Your task to perform on an android device: Do I have any events tomorrow? Image 0: 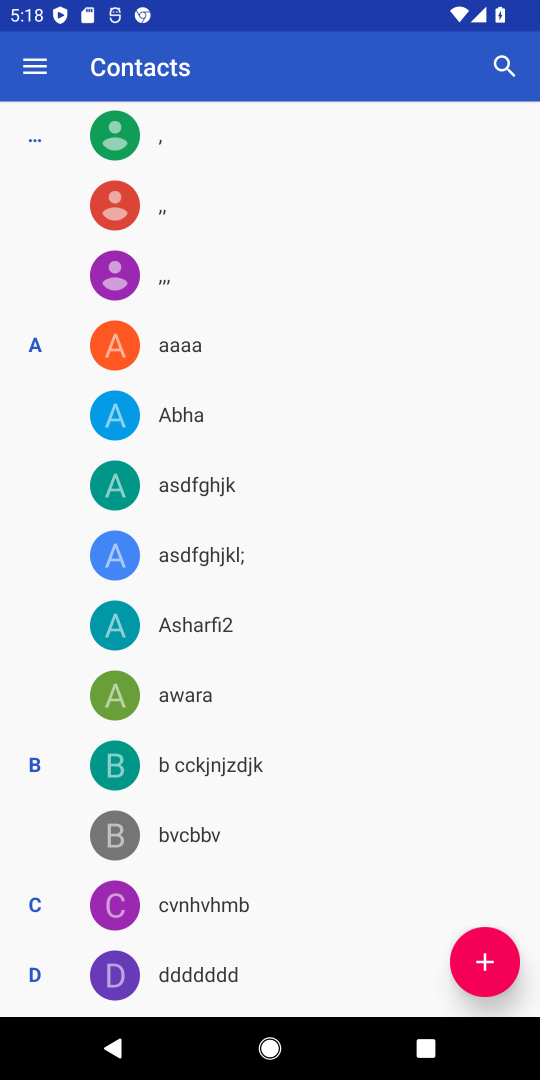
Step 0: press home button
Your task to perform on an android device: Do I have any events tomorrow? Image 1: 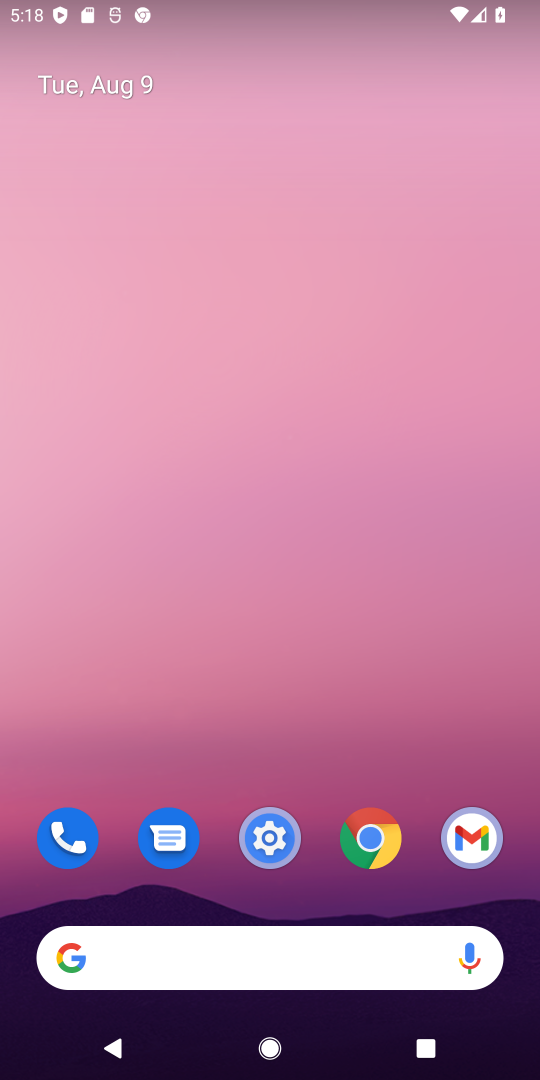
Step 1: drag from (317, 759) to (374, 258)
Your task to perform on an android device: Do I have any events tomorrow? Image 2: 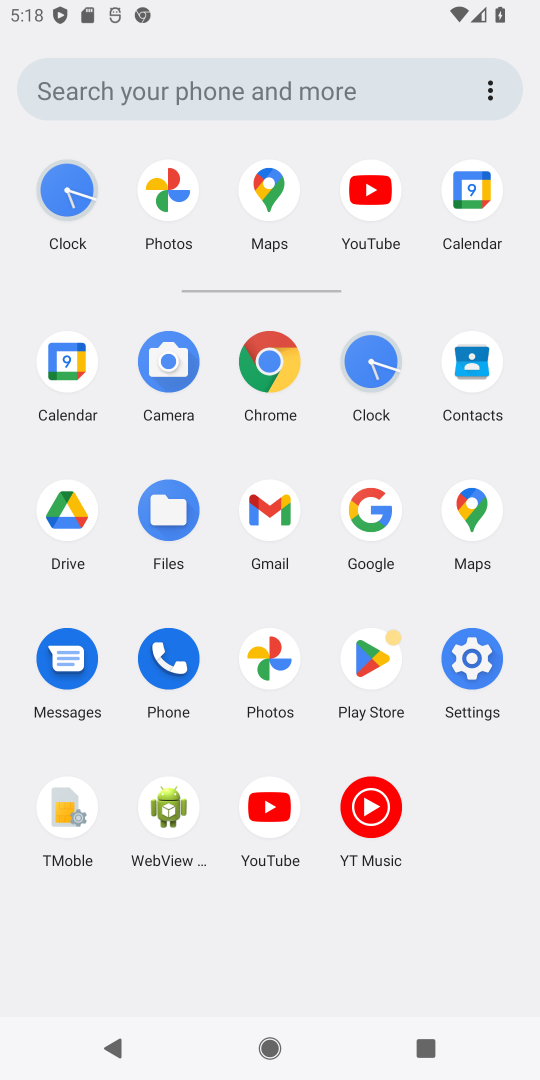
Step 2: click (495, 205)
Your task to perform on an android device: Do I have any events tomorrow? Image 3: 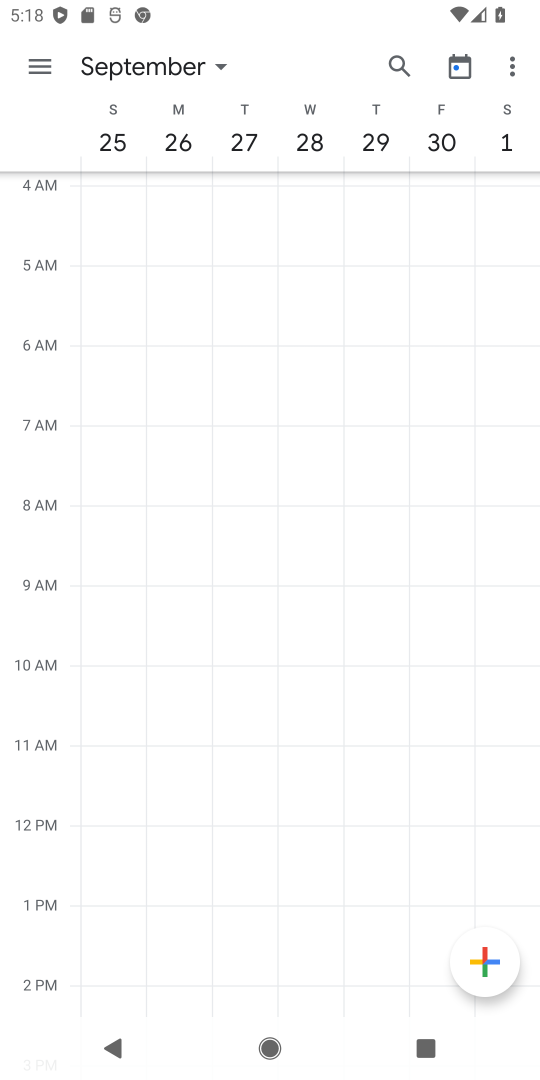
Step 3: click (128, 74)
Your task to perform on an android device: Do I have any events tomorrow? Image 4: 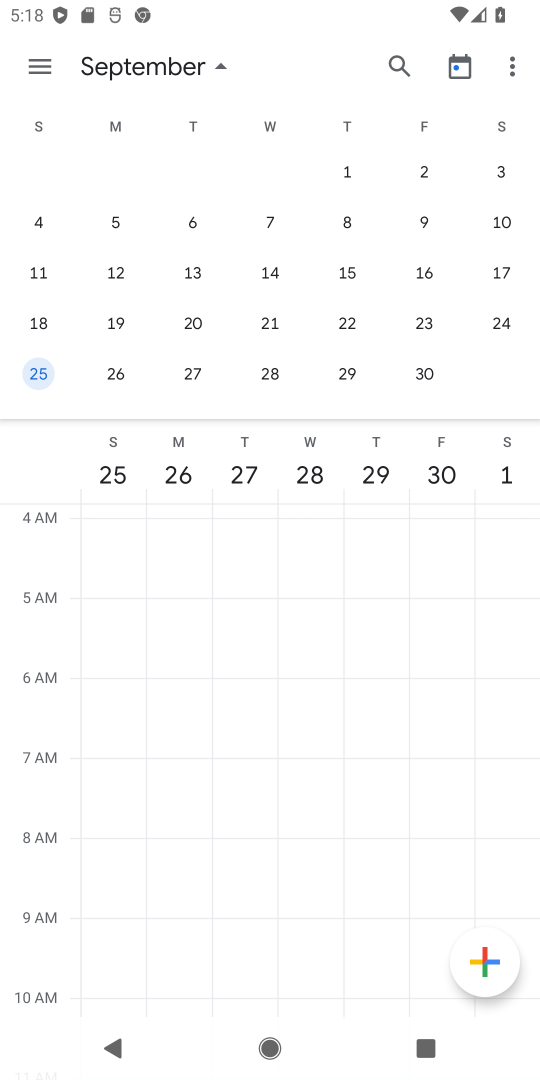
Step 4: drag from (53, 254) to (535, 346)
Your task to perform on an android device: Do I have any events tomorrow? Image 5: 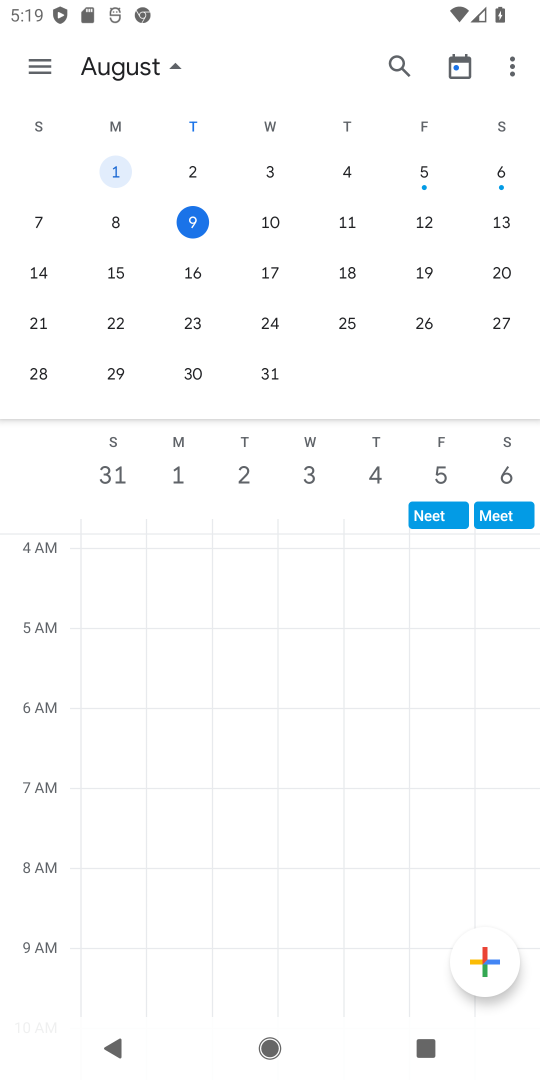
Step 5: click (281, 220)
Your task to perform on an android device: Do I have any events tomorrow? Image 6: 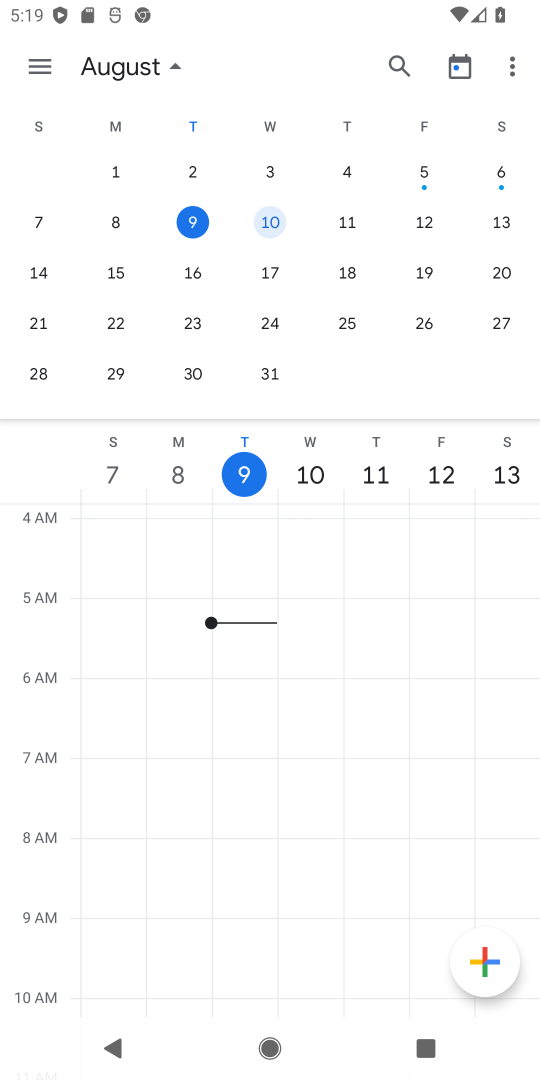
Step 6: click (38, 73)
Your task to perform on an android device: Do I have any events tomorrow? Image 7: 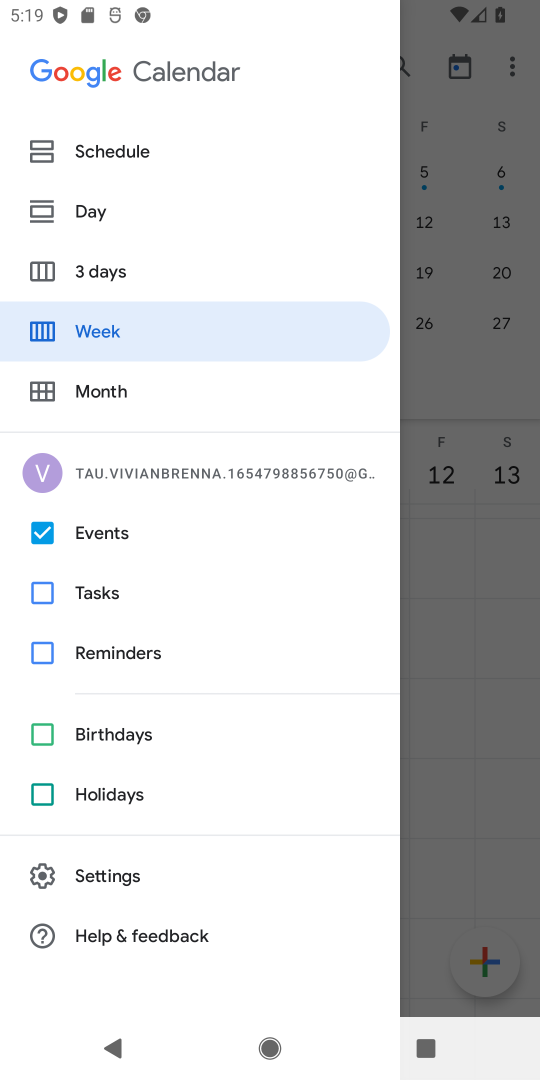
Step 7: click (72, 220)
Your task to perform on an android device: Do I have any events tomorrow? Image 8: 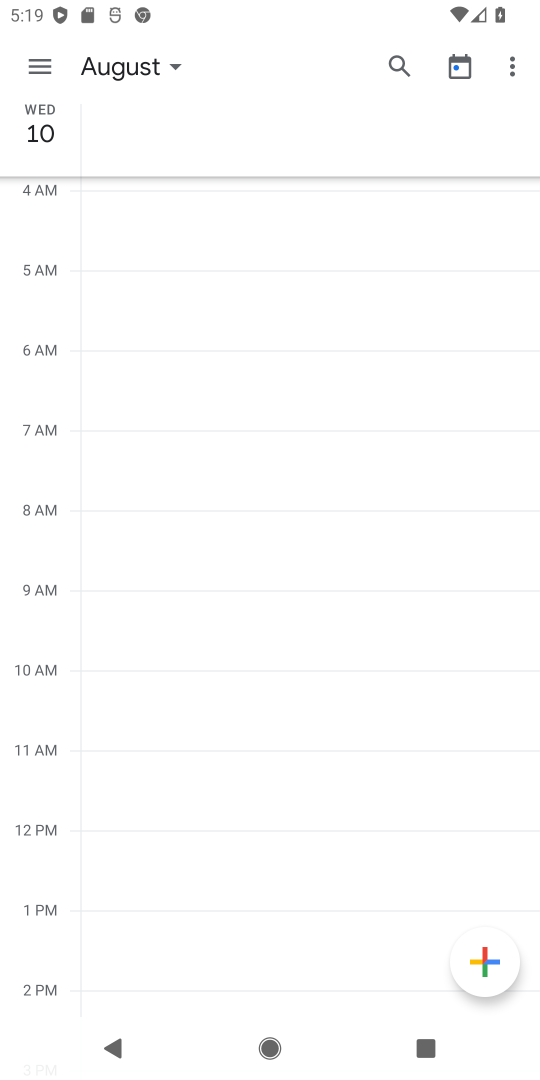
Step 8: task complete